Your task to perform on an android device: Do I have any events today? Image 0: 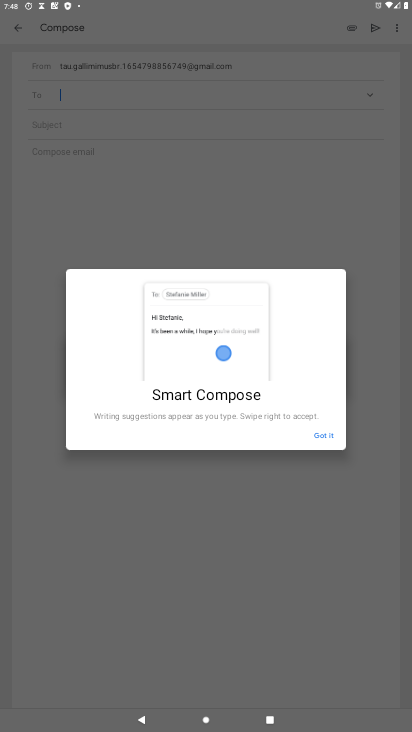
Step 0: press home button
Your task to perform on an android device: Do I have any events today? Image 1: 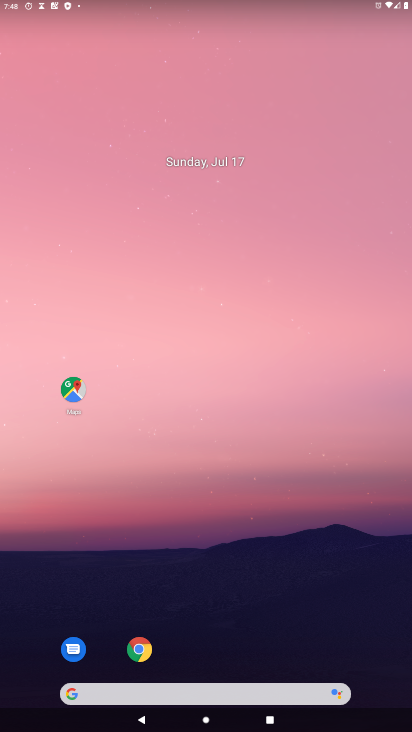
Step 1: drag from (197, 654) to (261, 41)
Your task to perform on an android device: Do I have any events today? Image 2: 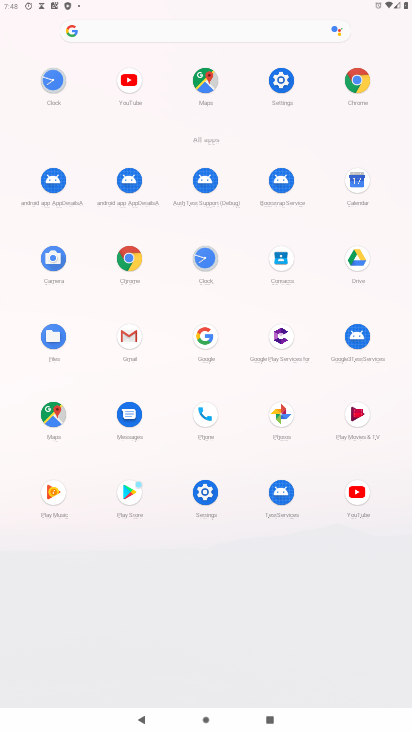
Step 2: click (357, 187)
Your task to perform on an android device: Do I have any events today? Image 3: 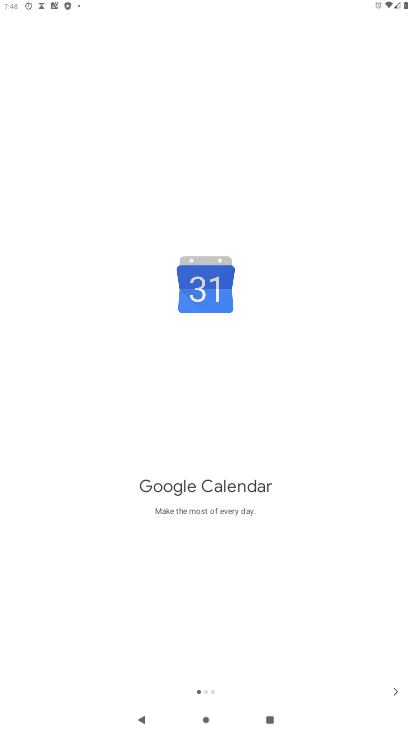
Step 3: click (392, 692)
Your task to perform on an android device: Do I have any events today? Image 4: 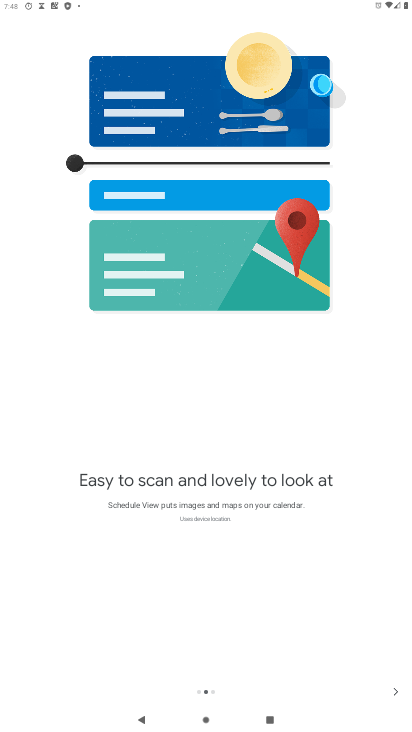
Step 4: click (394, 683)
Your task to perform on an android device: Do I have any events today? Image 5: 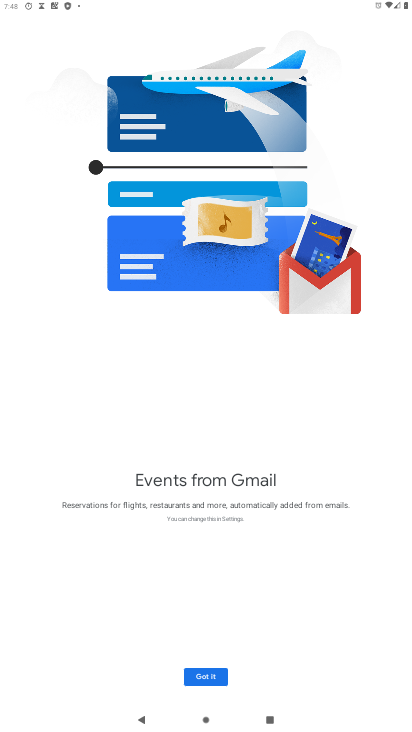
Step 5: click (198, 675)
Your task to perform on an android device: Do I have any events today? Image 6: 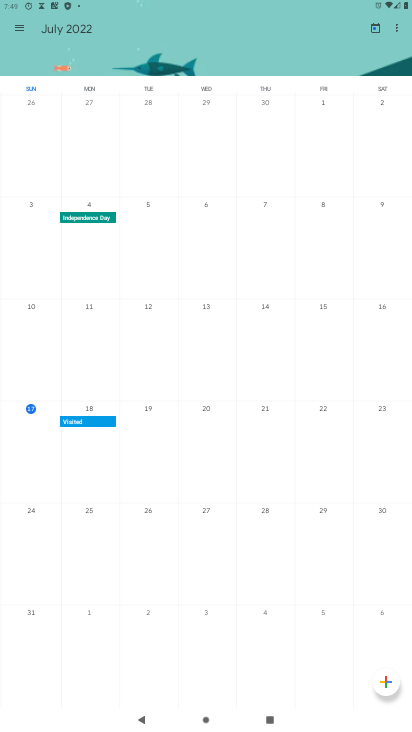
Step 6: click (19, 27)
Your task to perform on an android device: Do I have any events today? Image 7: 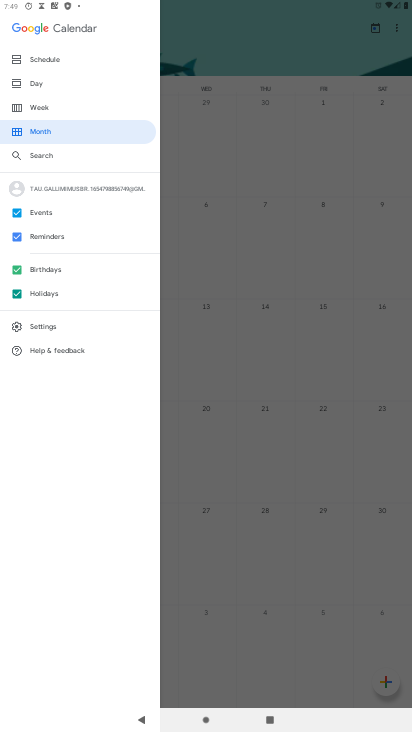
Step 7: click (59, 232)
Your task to perform on an android device: Do I have any events today? Image 8: 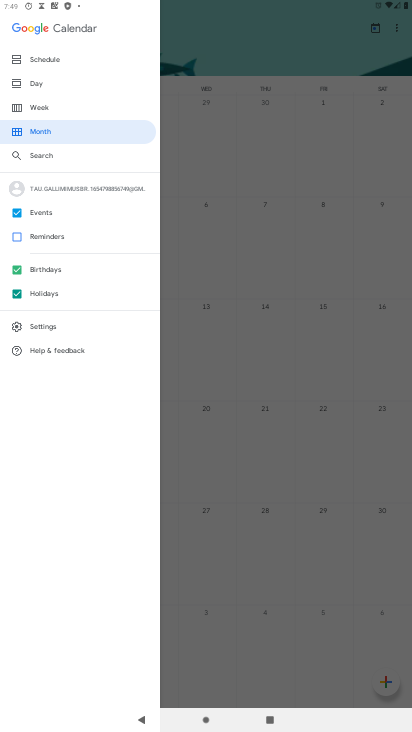
Step 8: click (45, 273)
Your task to perform on an android device: Do I have any events today? Image 9: 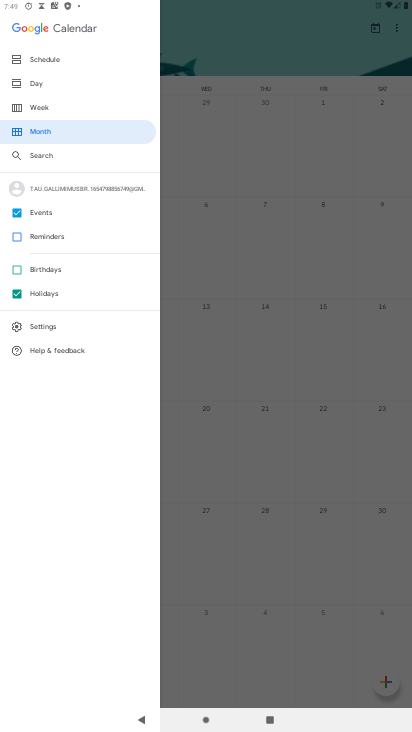
Step 9: click (42, 301)
Your task to perform on an android device: Do I have any events today? Image 10: 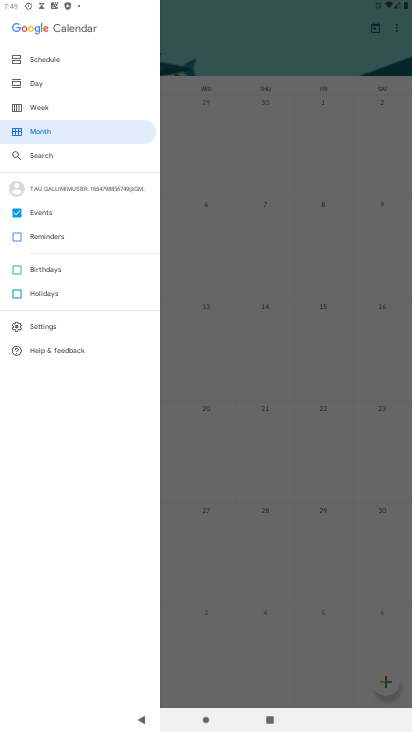
Step 10: click (36, 89)
Your task to perform on an android device: Do I have any events today? Image 11: 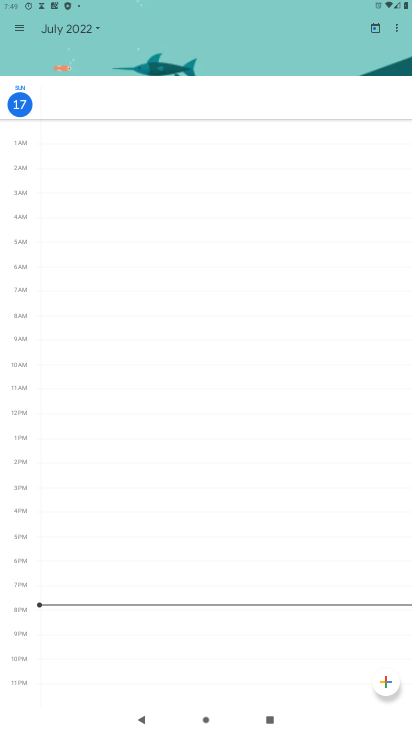
Step 11: task complete